Your task to perform on an android device: How big is the earth? Image 0: 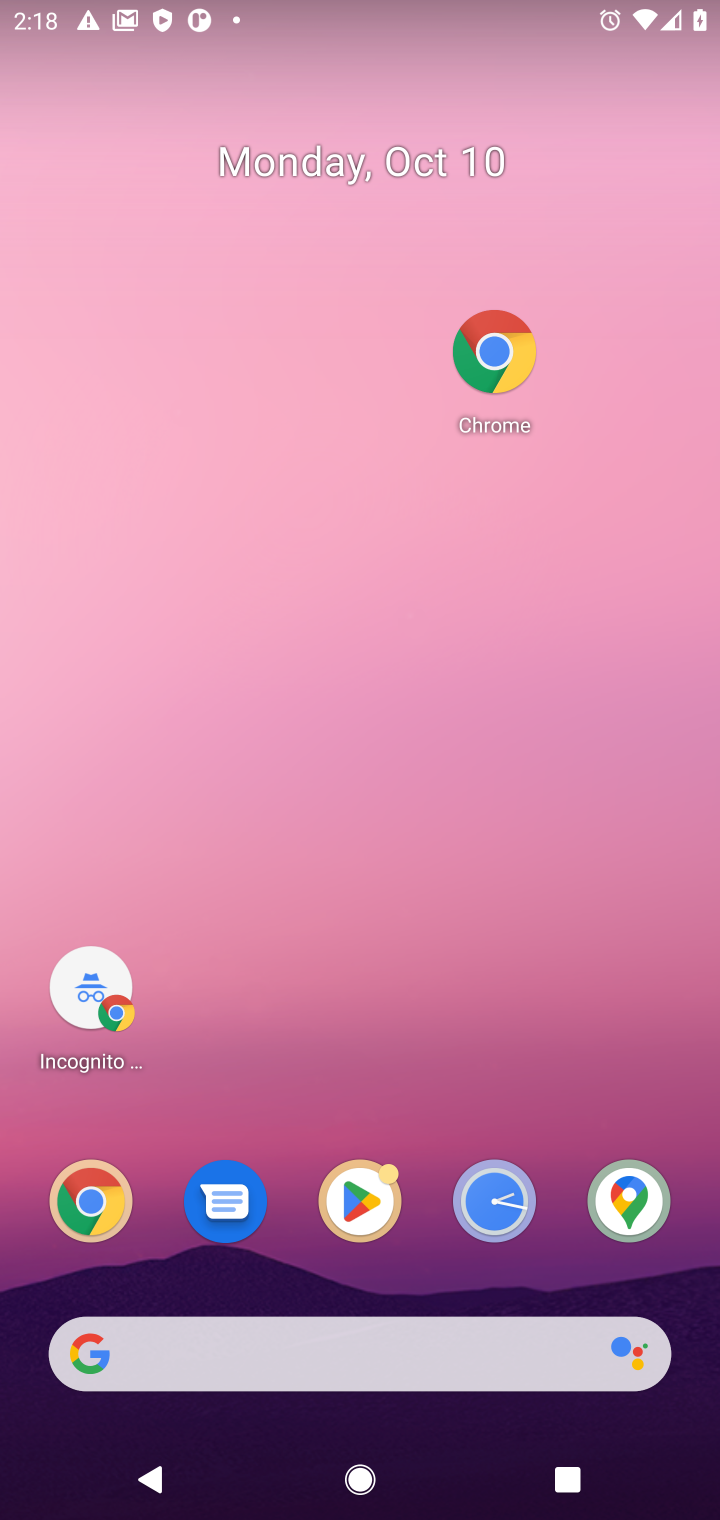
Step 0: click (476, 355)
Your task to perform on an android device: How big is the earth? Image 1: 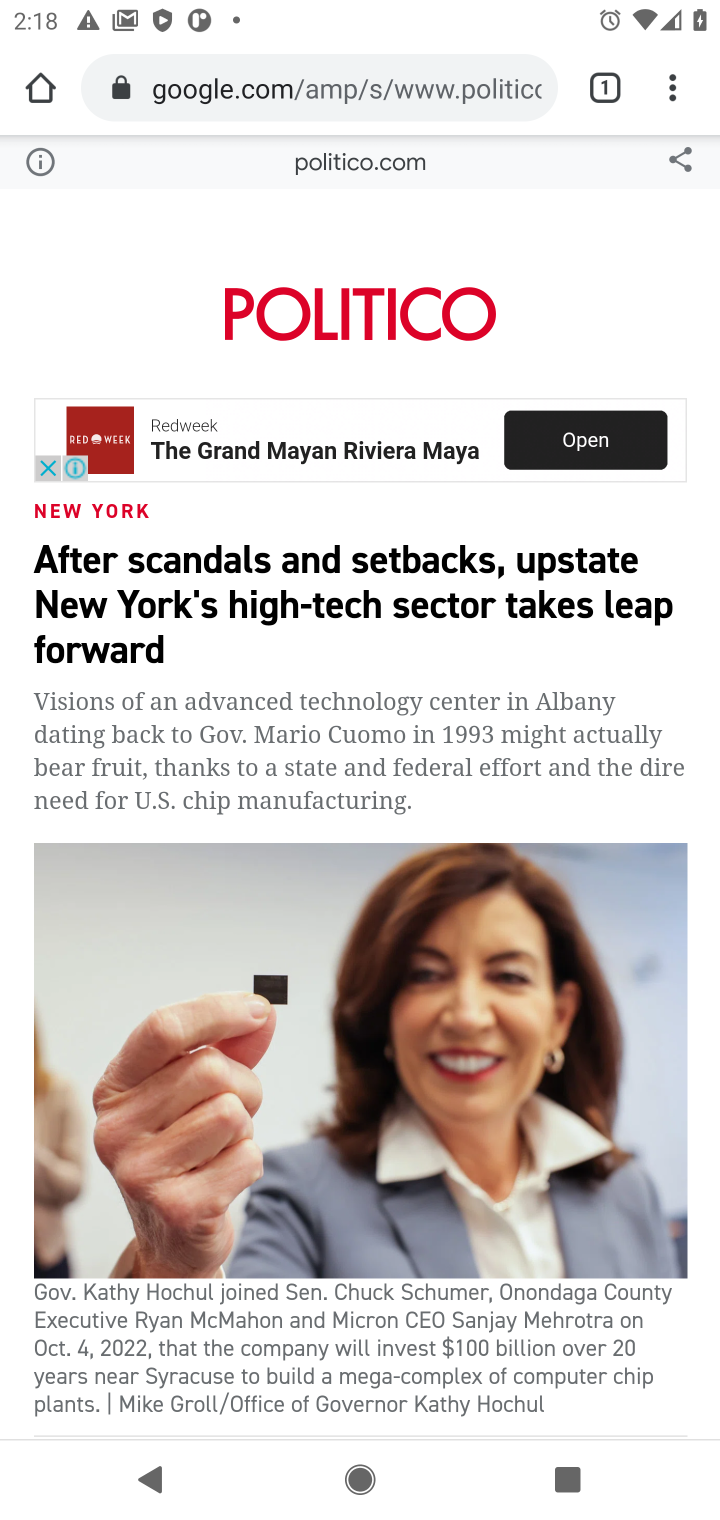
Step 1: click (218, 97)
Your task to perform on an android device: How big is the earth? Image 2: 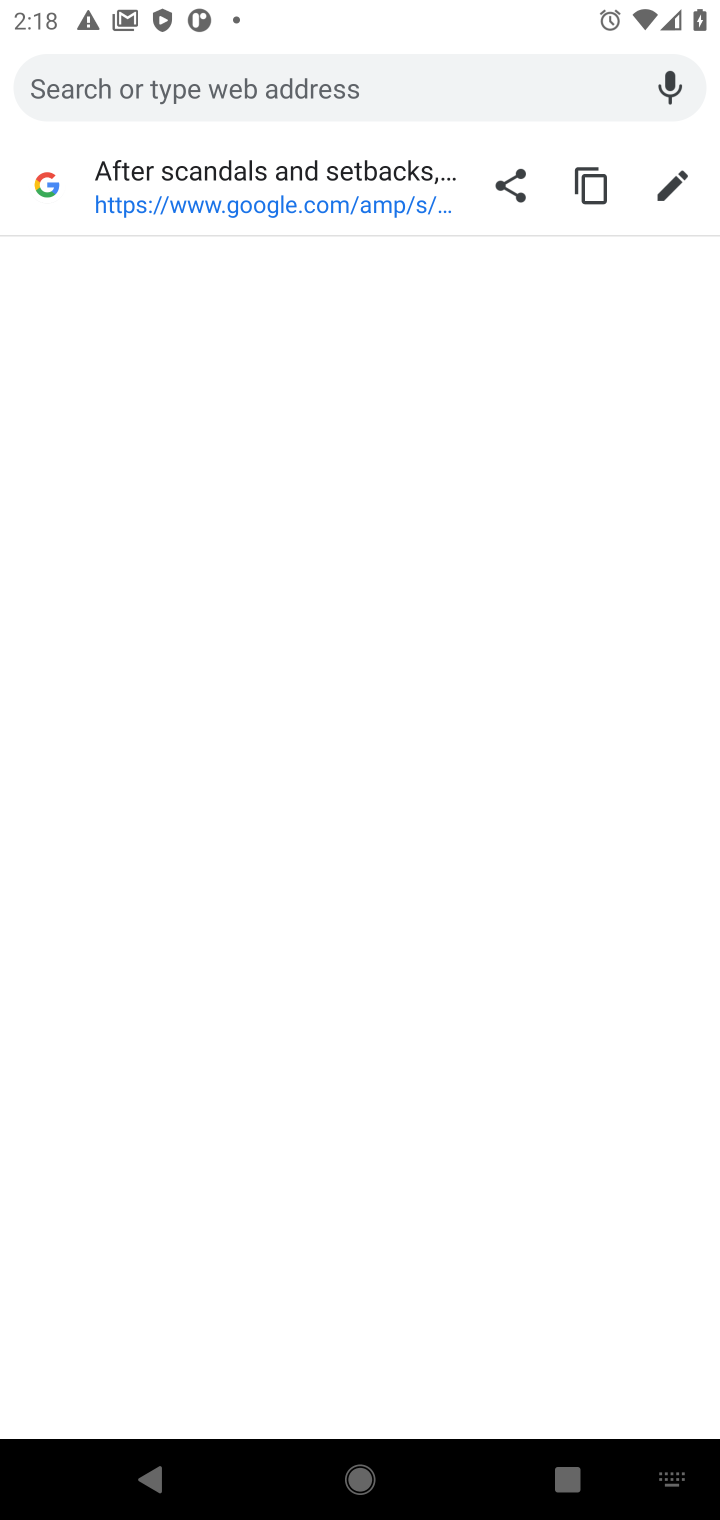
Step 2: type "how big is the earth"
Your task to perform on an android device: How big is the earth? Image 3: 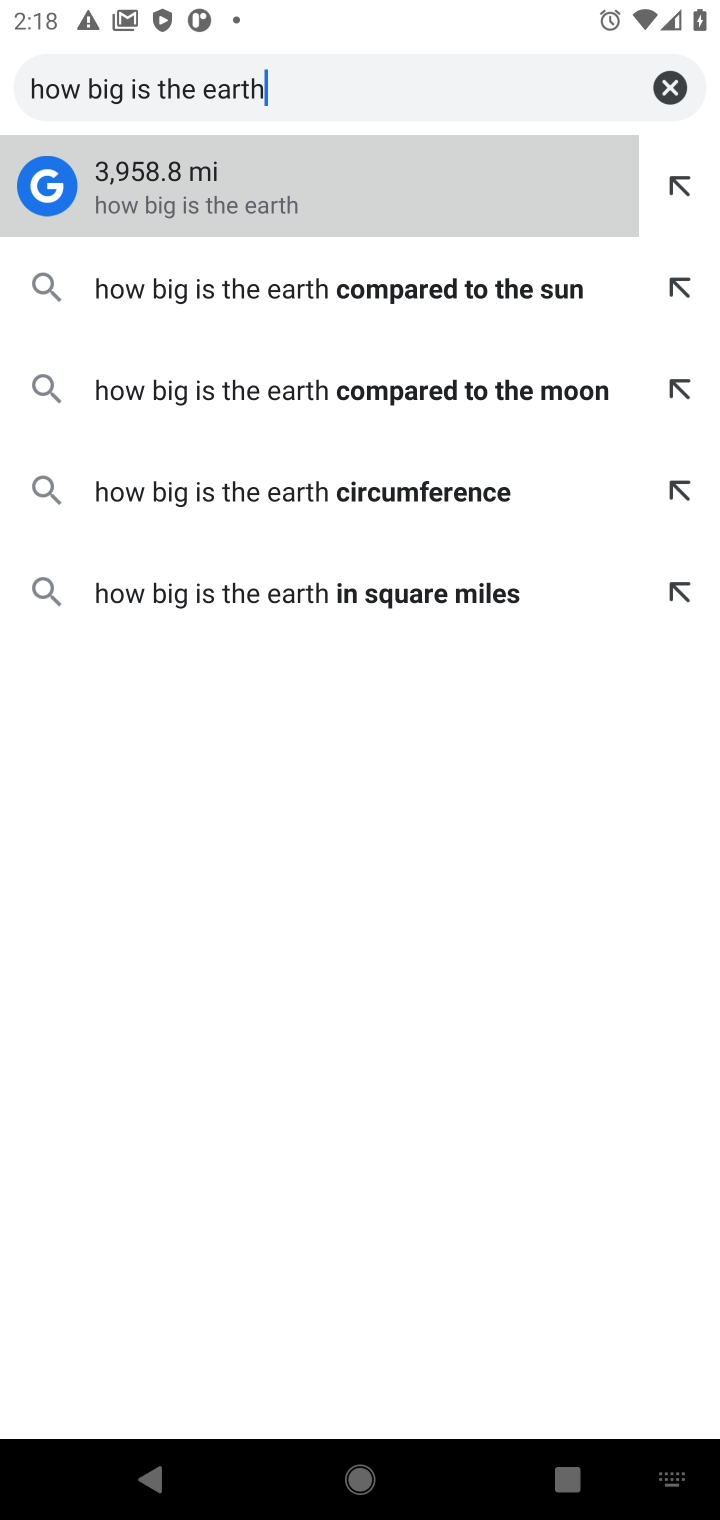
Step 3: click (157, 215)
Your task to perform on an android device: How big is the earth? Image 4: 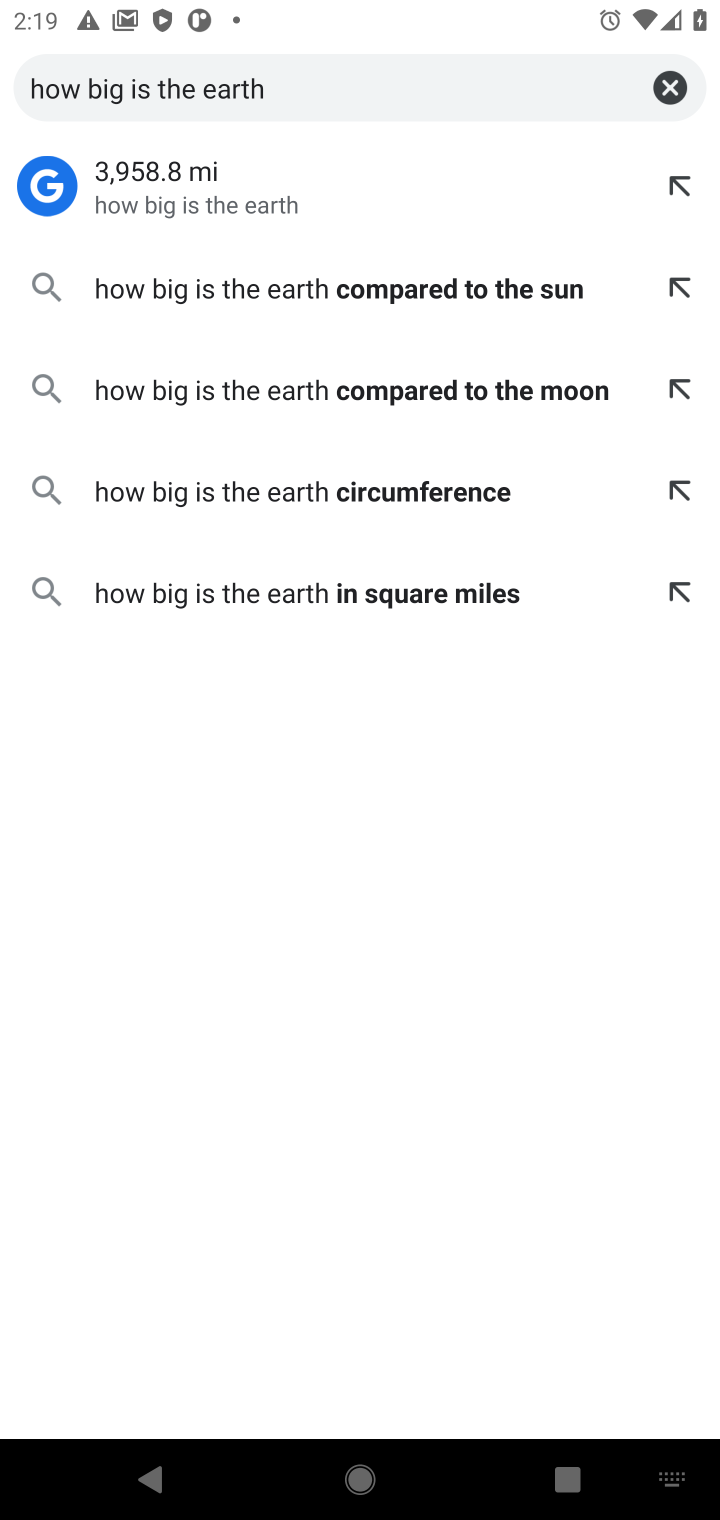
Step 4: click (153, 207)
Your task to perform on an android device: How big is the earth? Image 5: 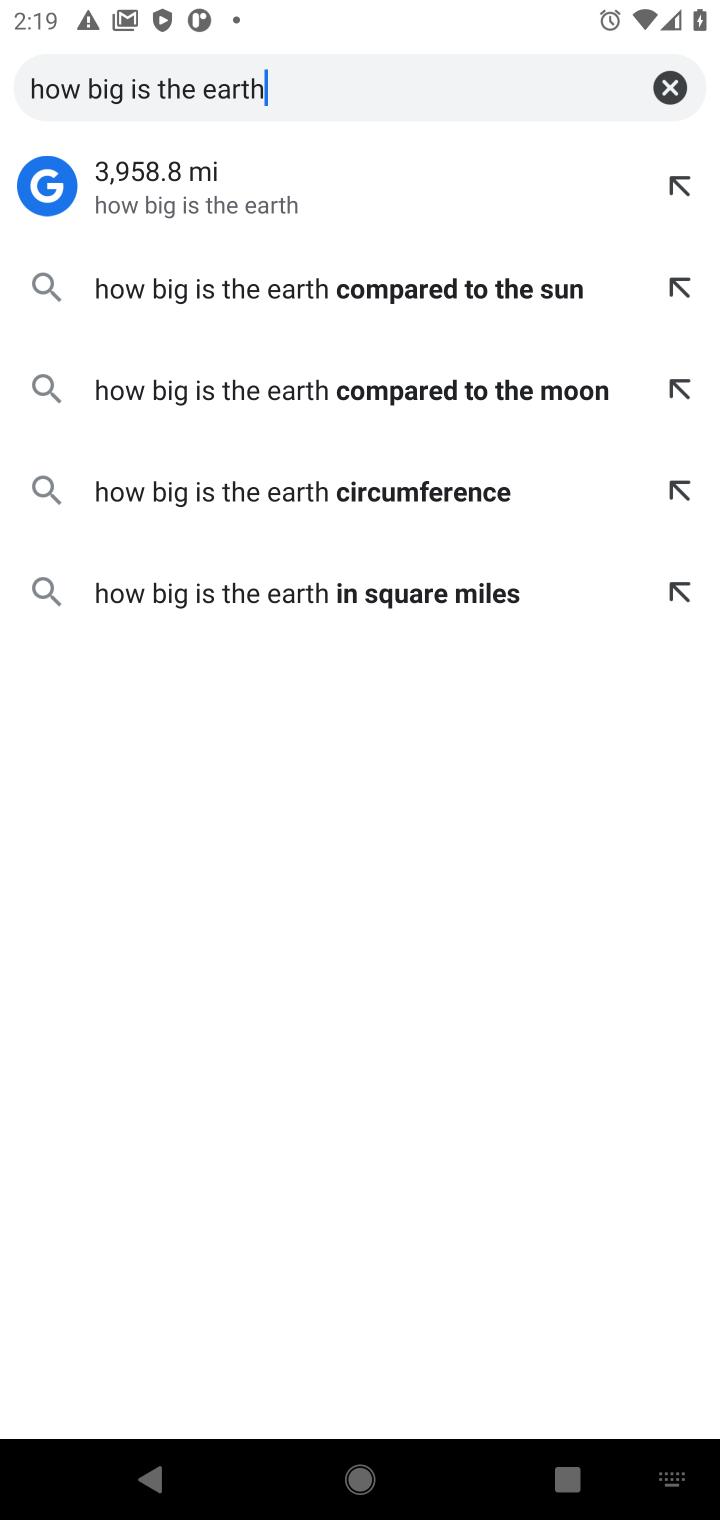
Step 5: click (305, 595)
Your task to perform on an android device: How big is the earth? Image 6: 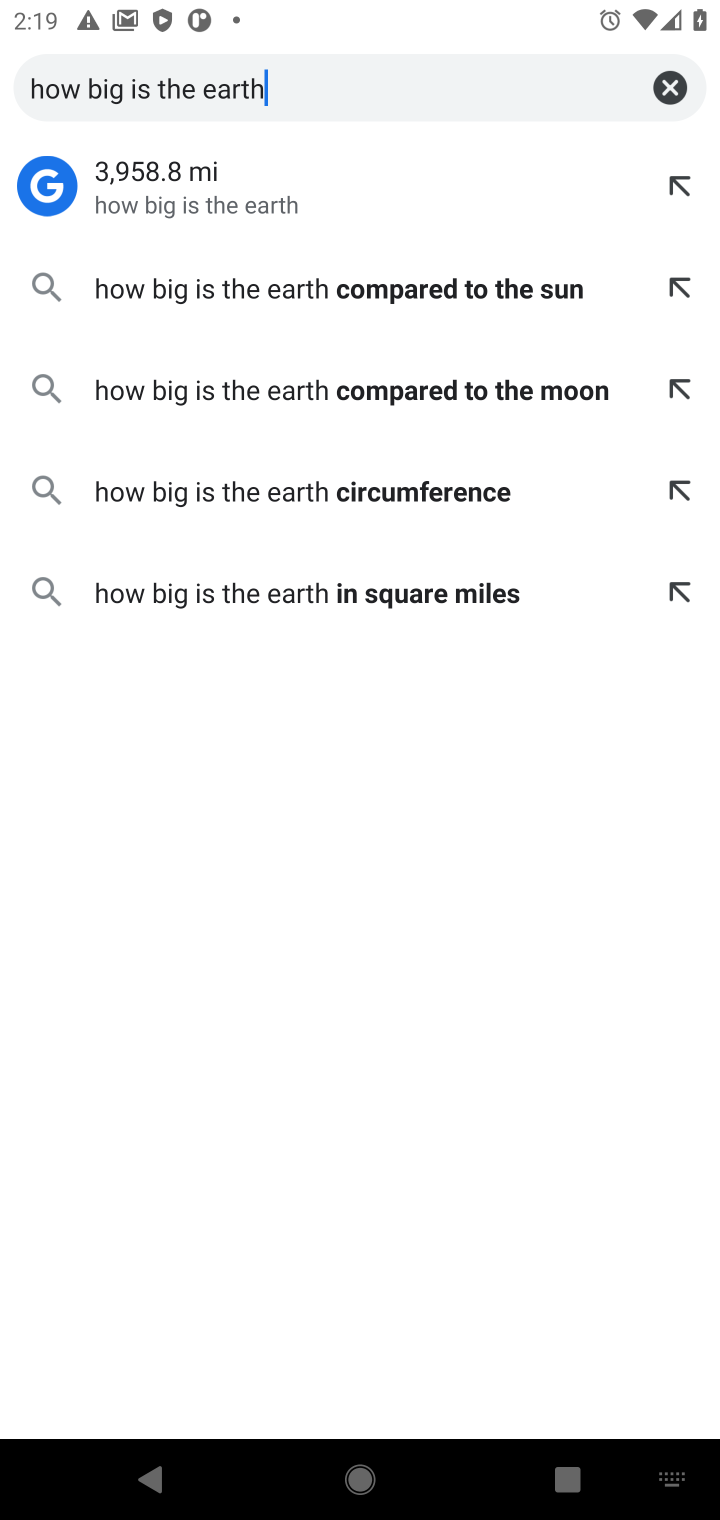
Step 6: click (304, 500)
Your task to perform on an android device: How big is the earth? Image 7: 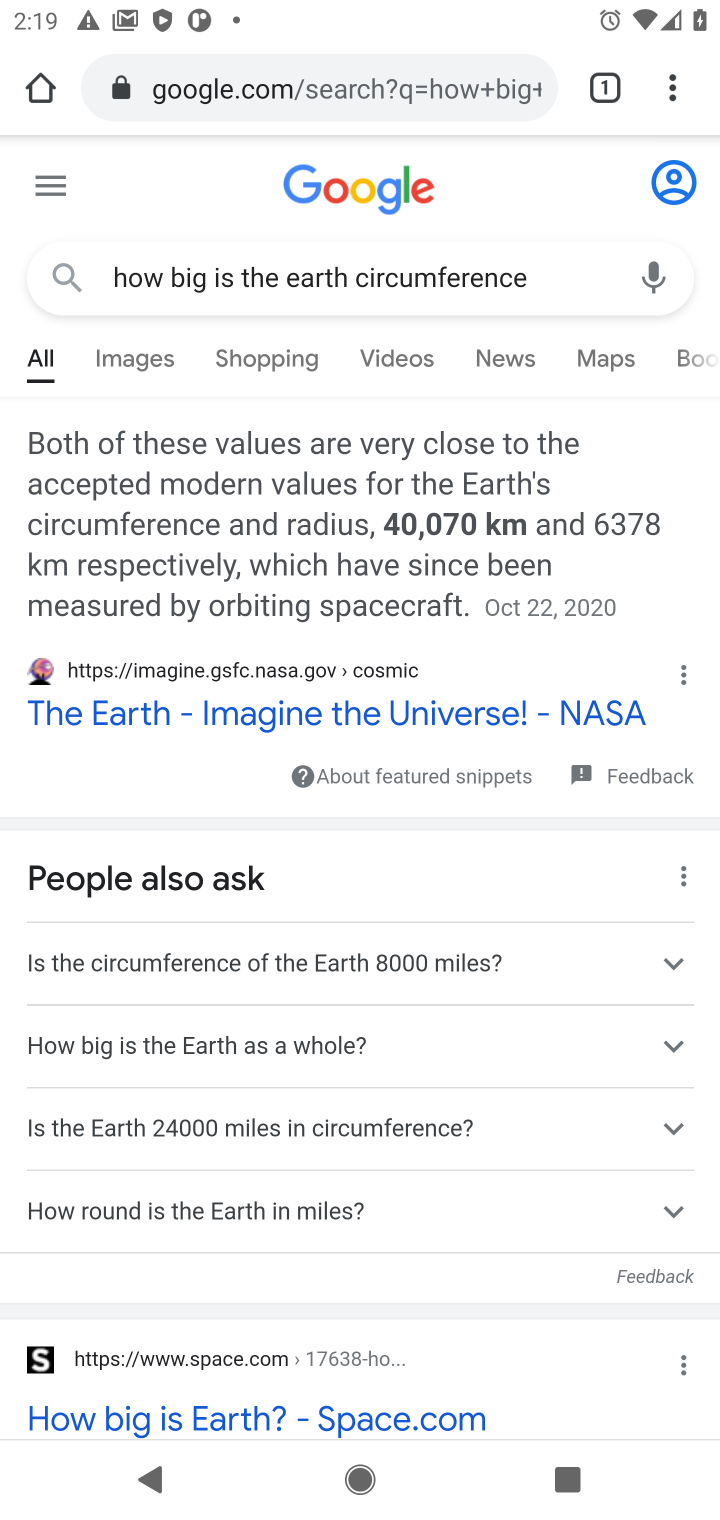
Step 7: task complete